Your task to perform on an android device: change timer sound Image 0: 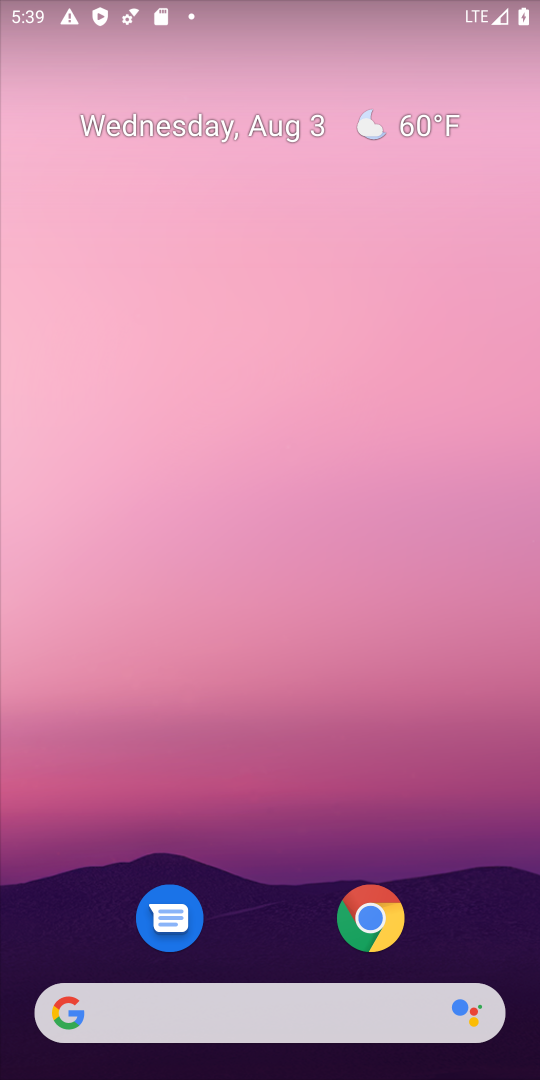
Step 0: drag from (278, 935) to (312, 134)
Your task to perform on an android device: change timer sound Image 1: 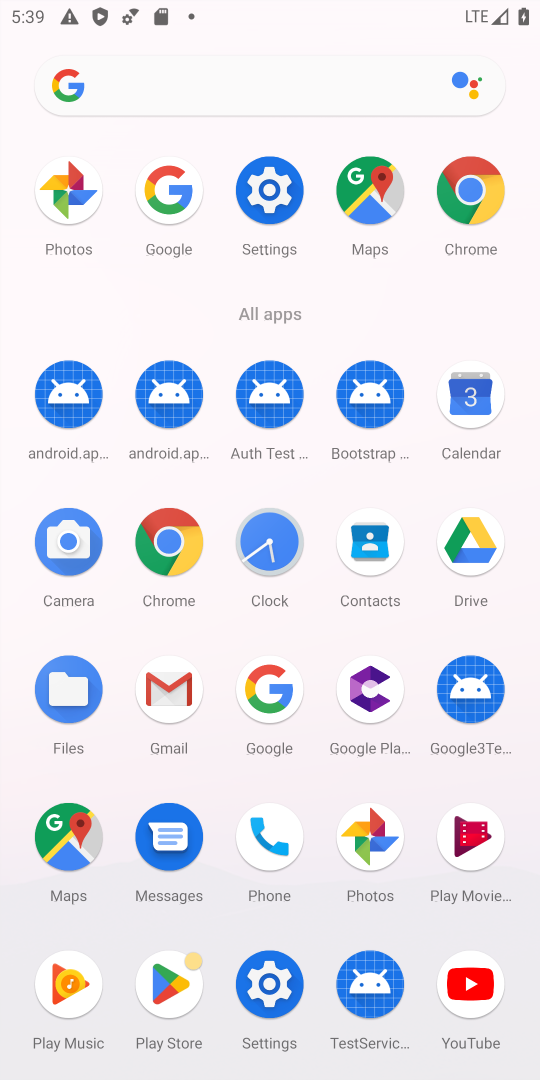
Step 1: click (263, 544)
Your task to perform on an android device: change timer sound Image 2: 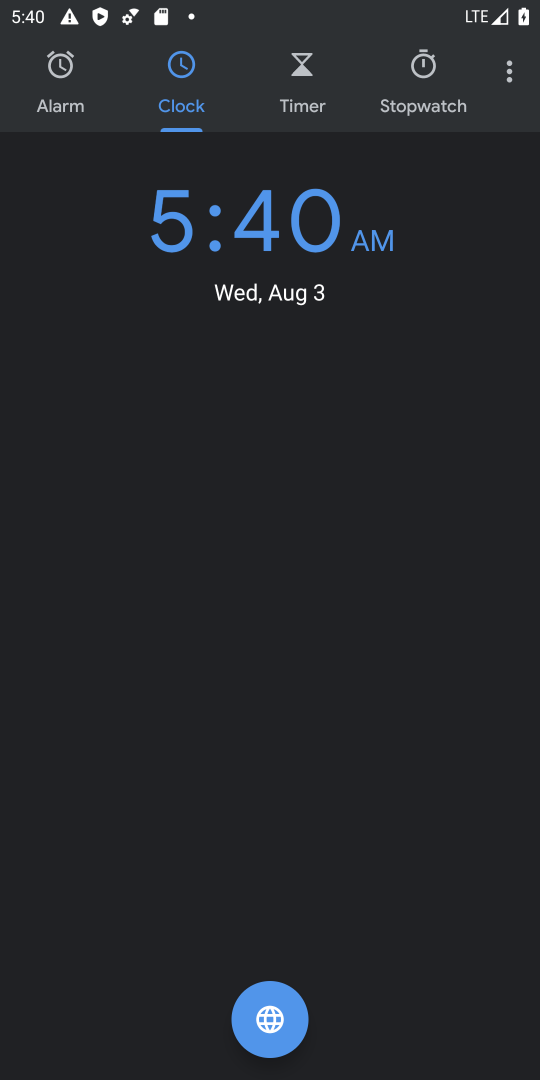
Step 2: click (504, 71)
Your task to perform on an android device: change timer sound Image 3: 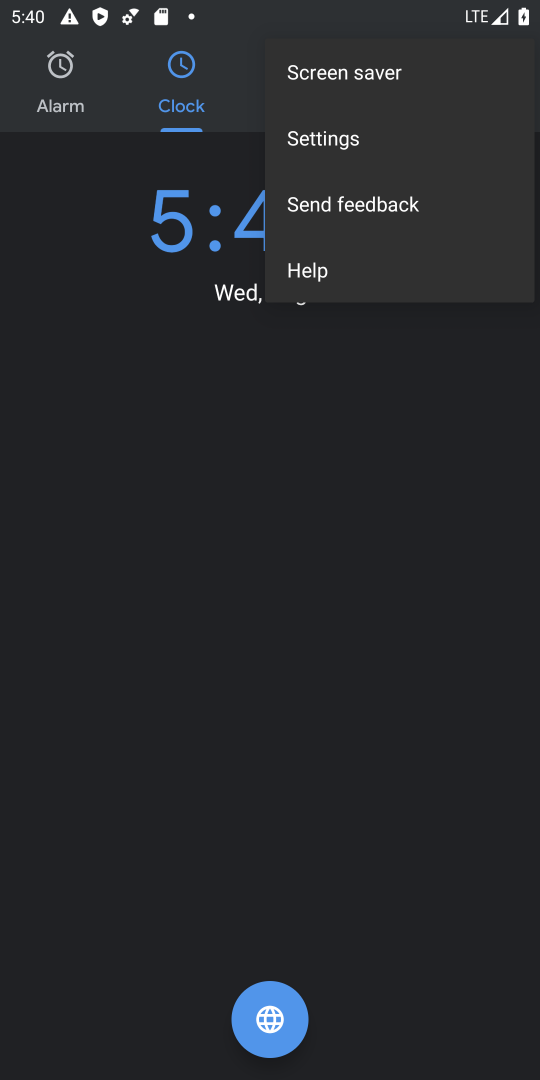
Step 3: click (364, 143)
Your task to perform on an android device: change timer sound Image 4: 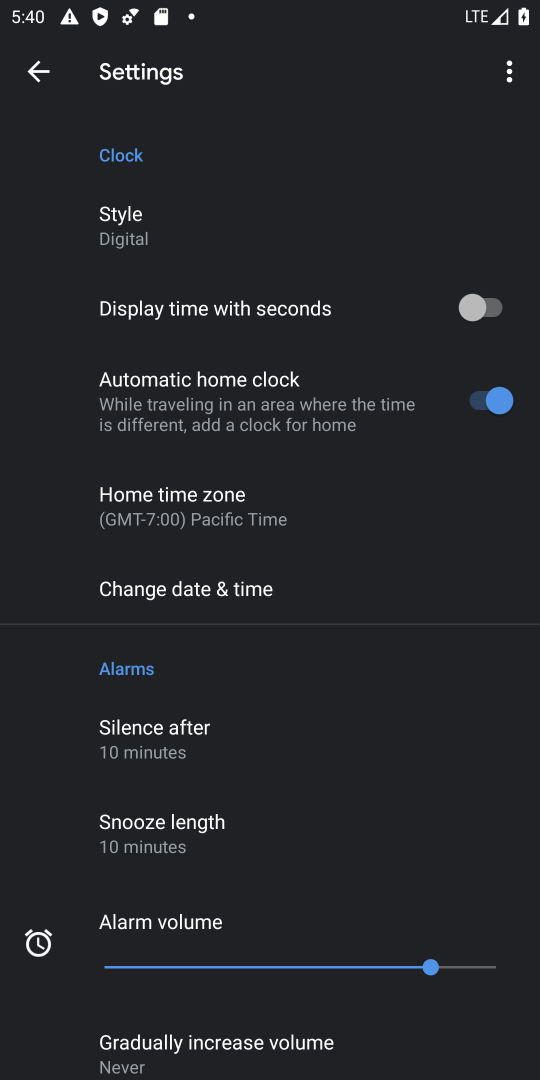
Step 4: drag from (287, 853) to (301, 26)
Your task to perform on an android device: change timer sound Image 5: 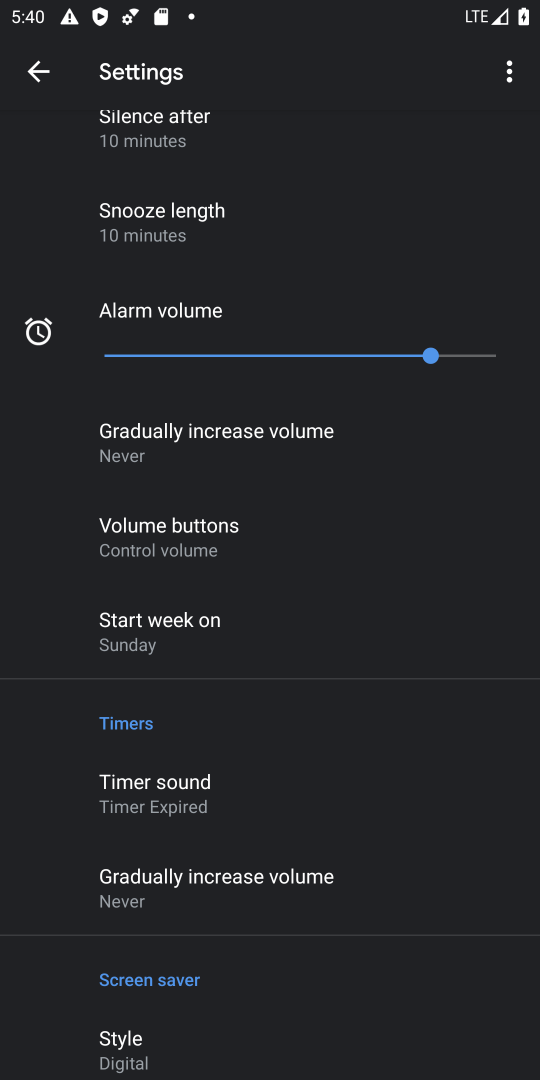
Step 5: click (207, 775)
Your task to perform on an android device: change timer sound Image 6: 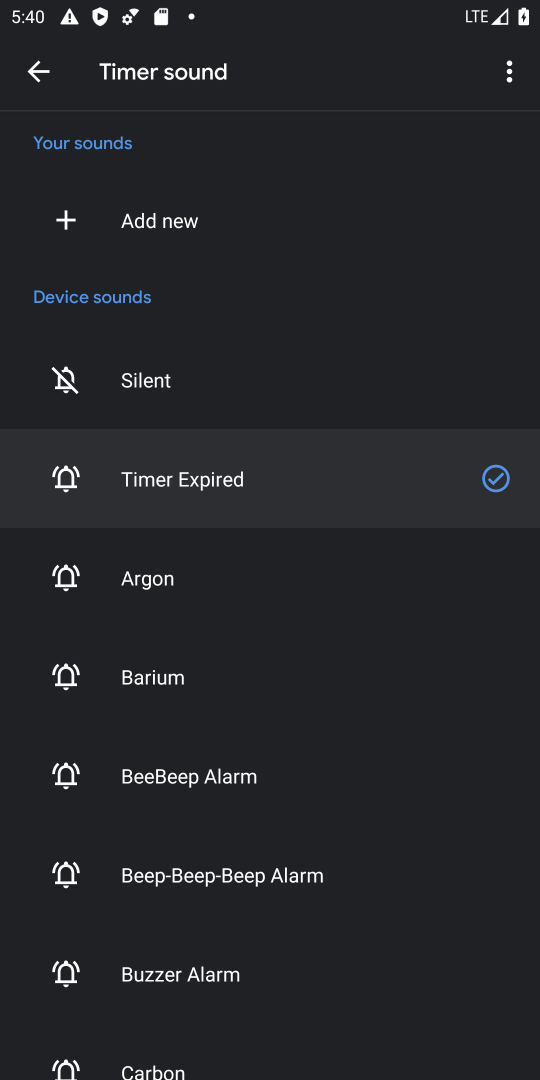
Step 6: click (176, 783)
Your task to perform on an android device: change timer sound Image 7: 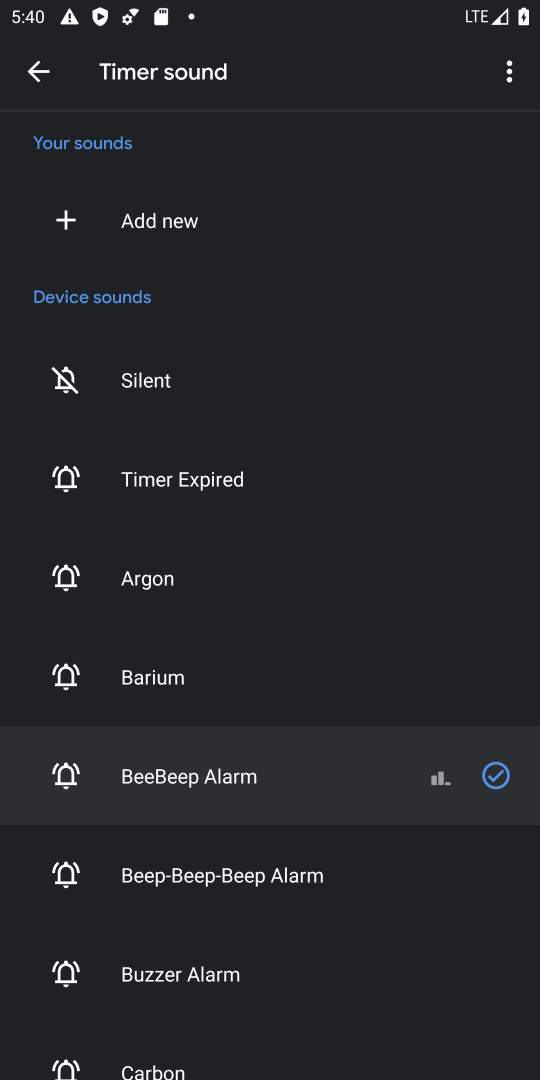
Step 7: task complete